Your task to perform on an android device: snooze an email in the gmail app Image 0: 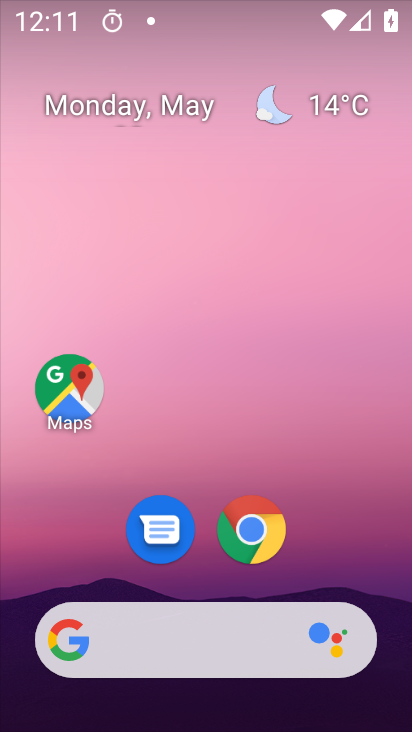
Step 0: drag from (393, 577) to (382, 192)
Your task to perform on an android device: snooze an email in the gmail app Image 1: 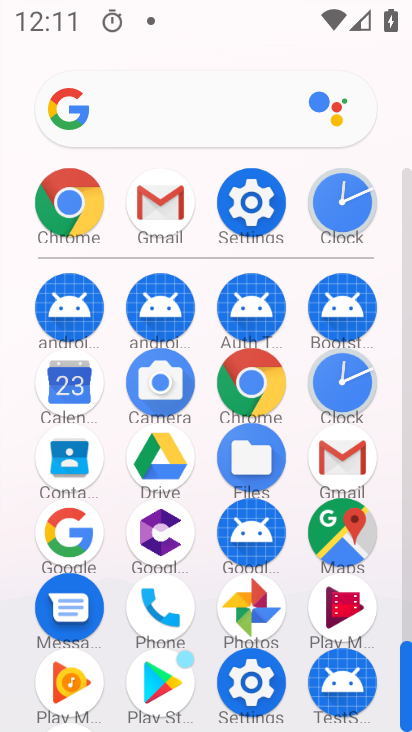
Step 1: click (348, 468)
Your task to perform on an android device: snooze an email in the gmail app Image 2: 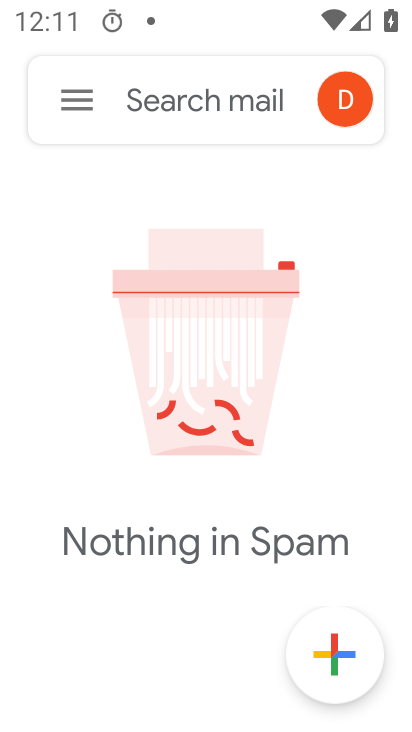
Step 2: click (80, 103)
Your task to perform on an android device: snooze an email in the gmail app Image 3: 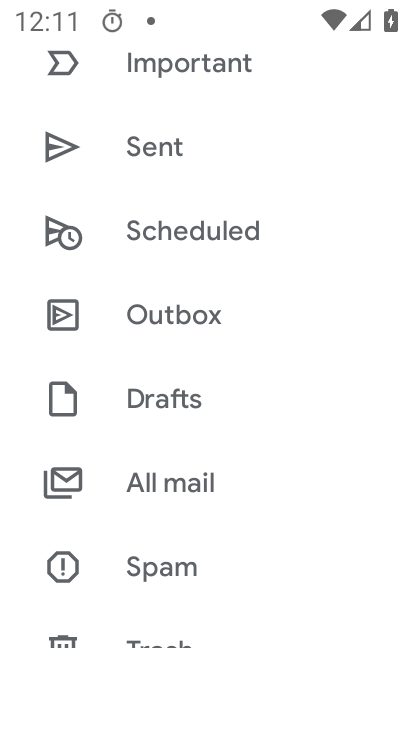
Step 3: drag from (309, 510) to (318, 399)
Your task to perform on an android device: snooze an email in the gmail app Image 4: 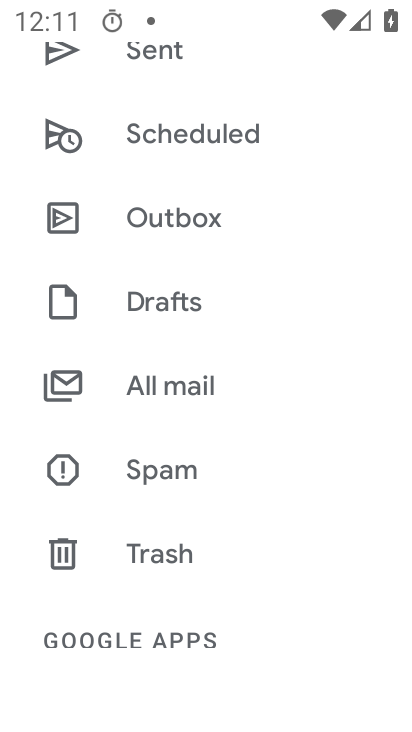
Step 4: drag from (332, 541) to (338, 389)
Your task to perform on an android device: snooze an email in the gmail app Image 5: 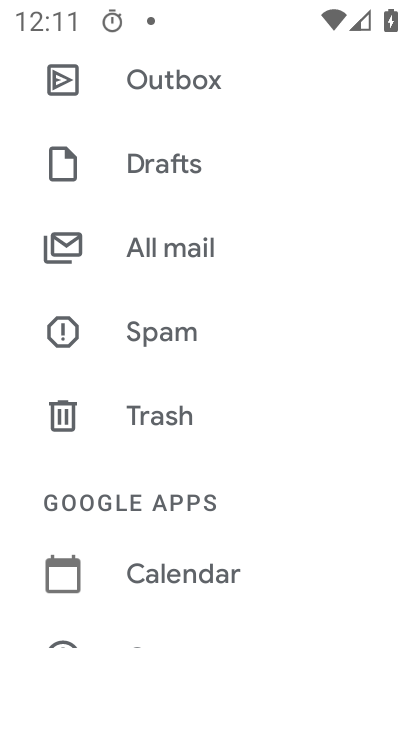
Step 5: drag from (339, 526) to (335, 403)
Your task to perform on an android device: snooze an email in the gmail app Image 6: 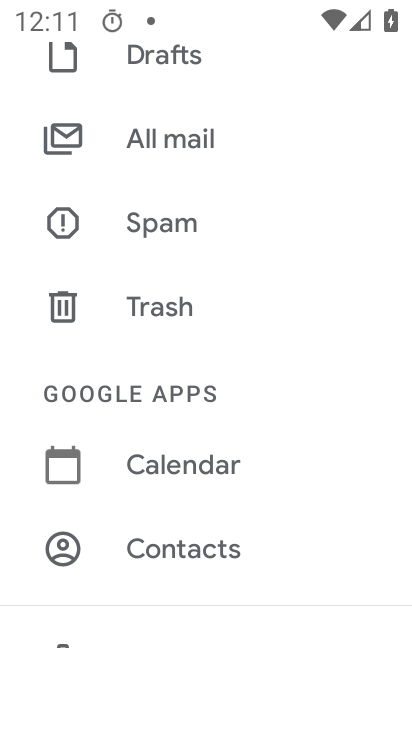
Step 6: drag from (314, 563) to (315, 425)
Your task to perform on an android device: snooze an email in the gmail app Image 7: 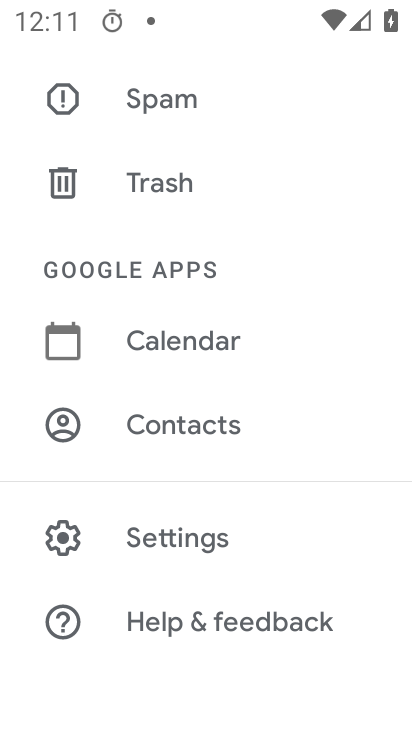
Step 7: drag from (307, 558) to (320, 456)
Your task to perform on an android device: snooze an email in the gmail app Image 8: 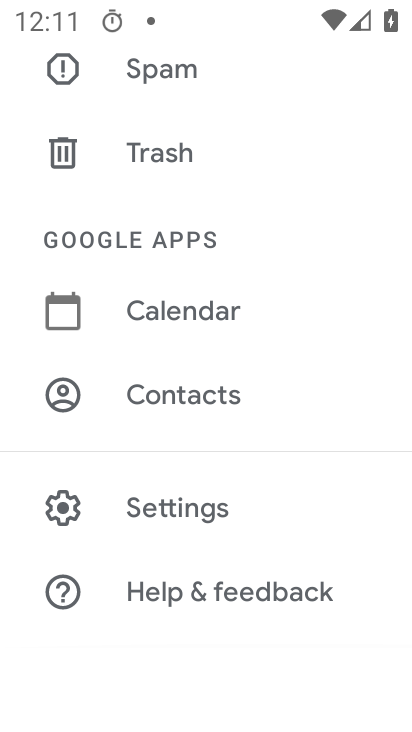
Step 8: drag from (330, 330) to (329, 443)
Your task to perform on an android device: snooze an email in the gmail app Image 9: 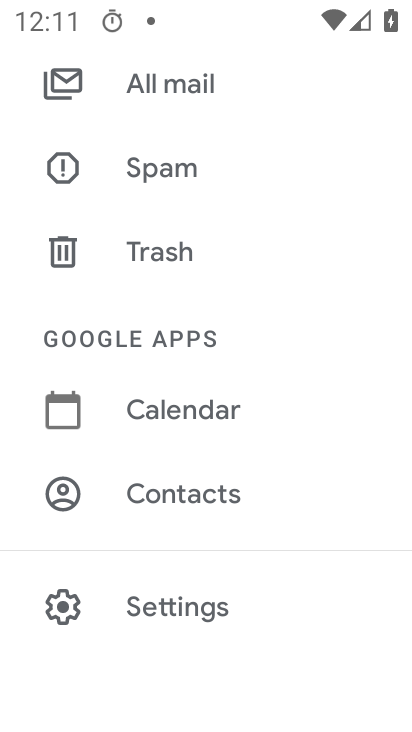
Step 9: drag from (336, 332) to (341, 438)
Your task to perform on an android device: snooze an email in the gmail app Image 10: 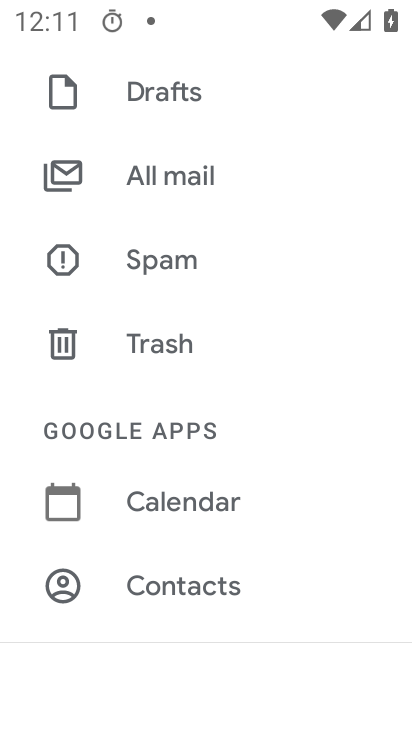
Step 10: drag from (348, 302) to (340, 425)
Your task to perform on an android device: snooze an email in the gmail app Image 11: 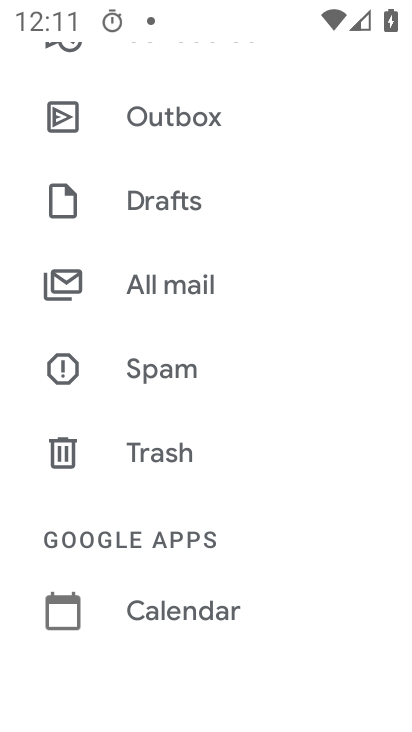
Step 11: drag from (346, 283) to (344, 368)
Your task to perform on an android device: snooze an email in the gmail app Image 12: 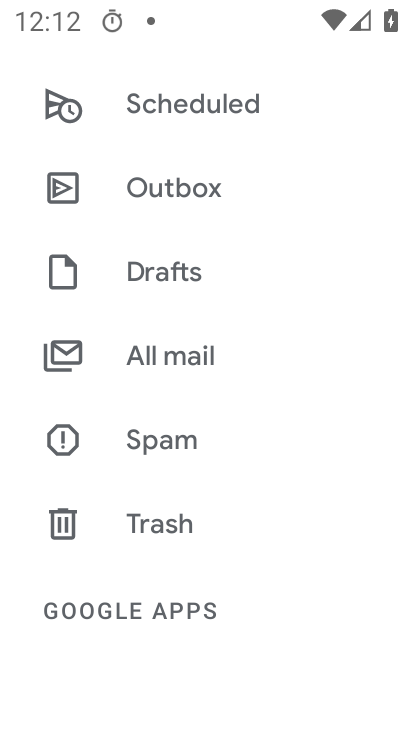
Step 12: drag from (345, 285) to (345, 361)
Your task to perform on an android device: snooze an email in the gmail app Image 13: 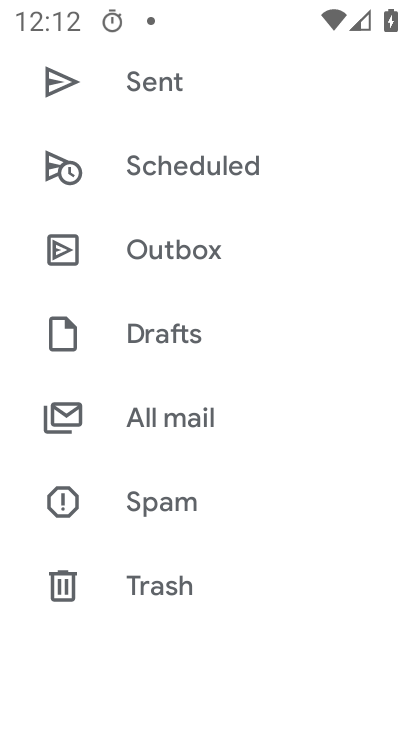
Step 13: drag from (352, 264) to (347, 382)
Your task to perform on an android device: snooze an email in the gmail app Image 14: 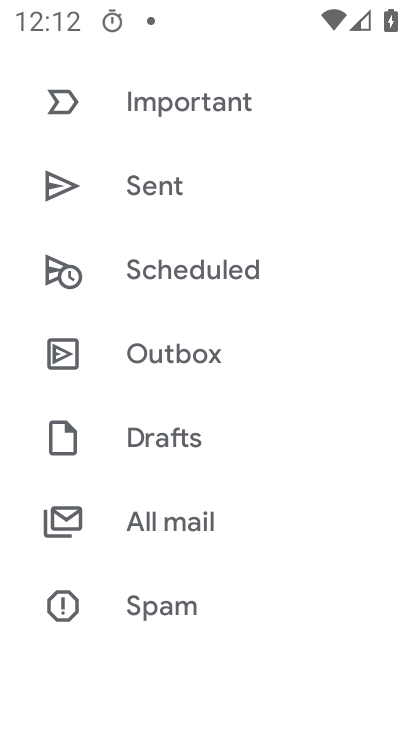
Step 14: drag from (337, 281) to (337, 393)
Your task to perform on an android device: snooze an email in the gmail app Image 15: 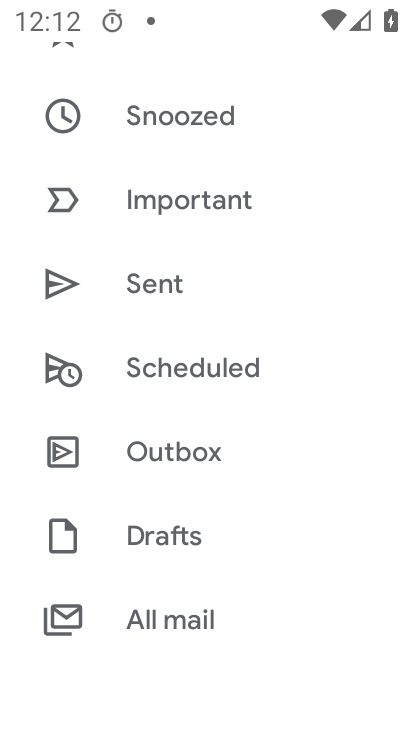
Step 15: drag from (343, 228) to (339, 362)
Your task to perform on an android device: snooze an email in the gmail app Image 16: 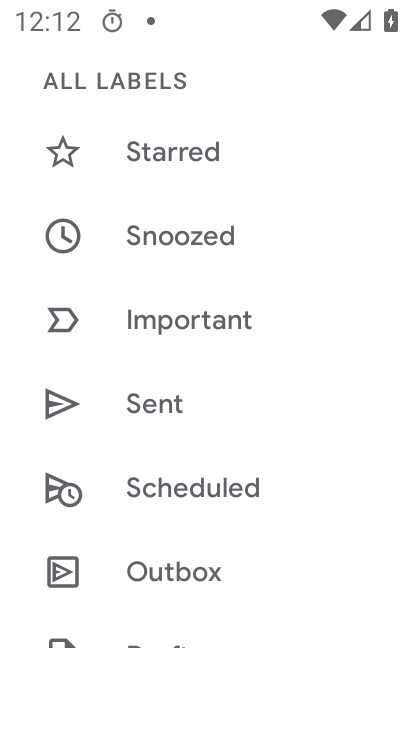
Step 16: click (208, 236)
Your task to perform on an android device: snooze an email in the gmail app Image 17: 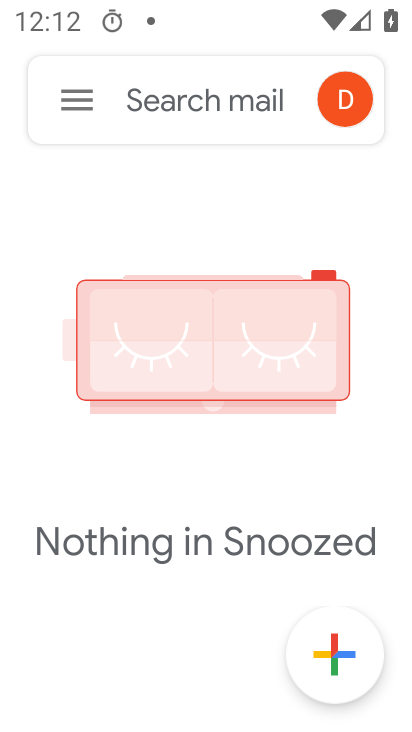
Step 17: task complete